Your task to perform on an android device: Play the last video I watched on Youtube Image 0: 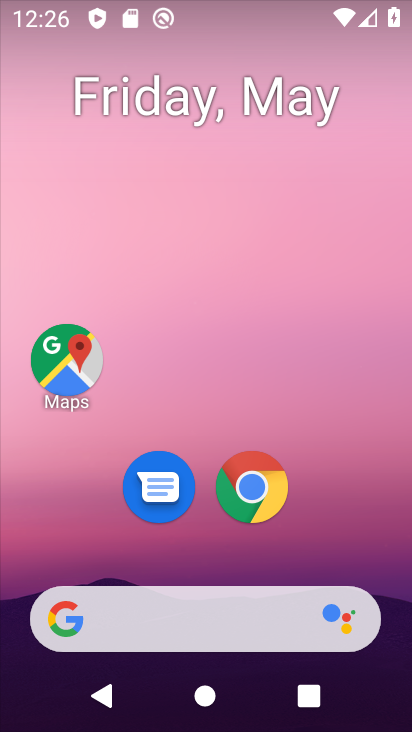
Step 0: drag from (198, 575) to (248, 138)
Your task to perform on an android device: Play the last video I watched on Youtube Image 1: 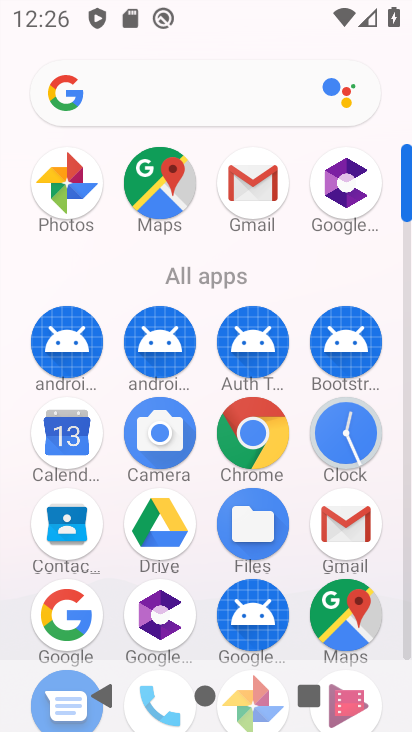
Step 1: drag from (218, 607) to (266, 364)
Your task to perform on an android device: Play the last video I watched on Youtube Image 2: 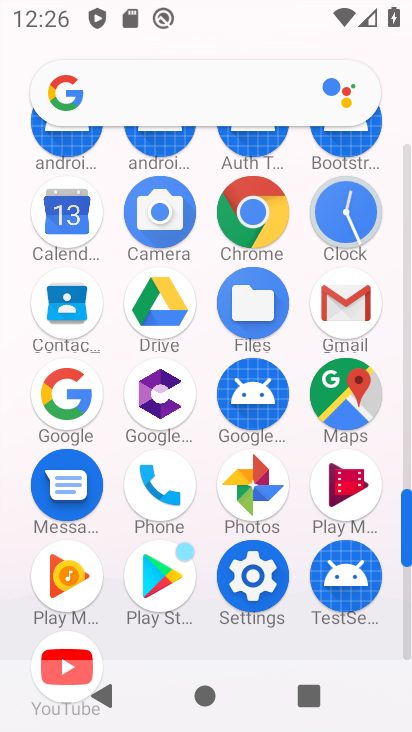
Step 2: click (74, 651)
Your task to perform on an android device: Play the last video I watched on Youtube Image 3: 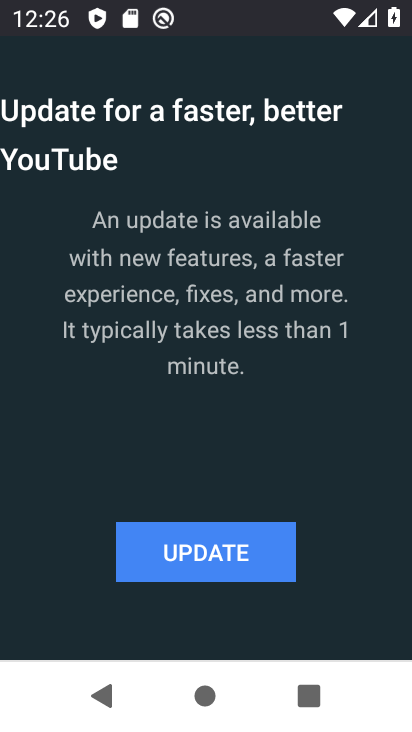
Step 3: click (271, 559)
Your task to perform on an android device: Play the last video I watched on Youtube Image 4: 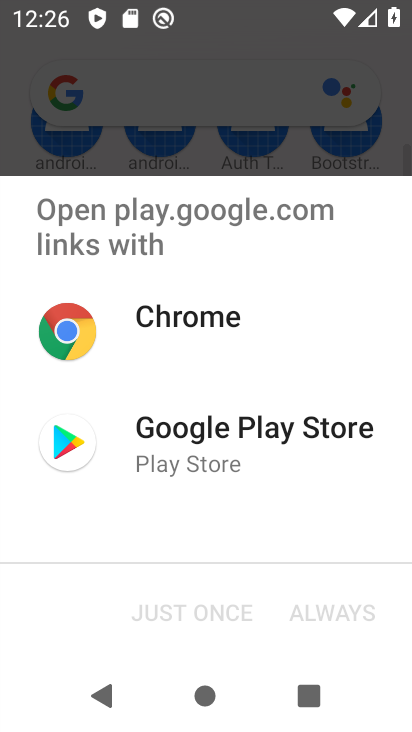
Step 4: click (234, 444)
Your task to perform on an android device: Play the last video I watched on Youtube Image 5: 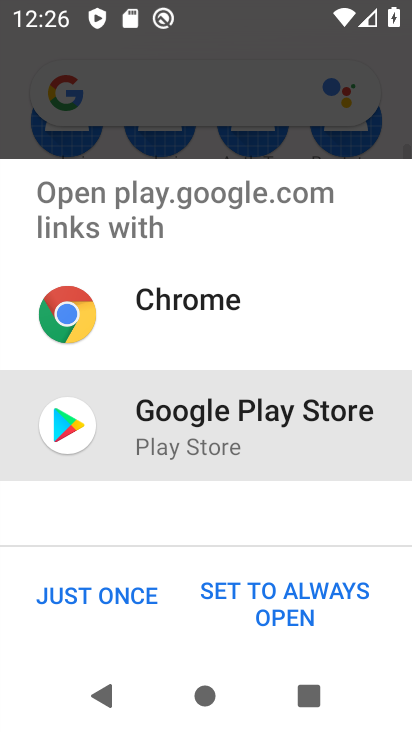
Step 5: click (90, 594)
Your task to perform on an android device: Play the last video I watched on Youtube Image 6: 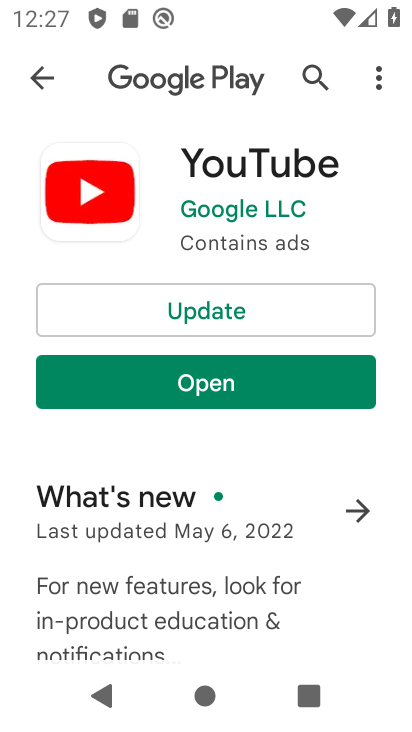
Step 6: click (213, 315)
Your task to perform on an android device: Play the last video I watched on Youtube Image 7: 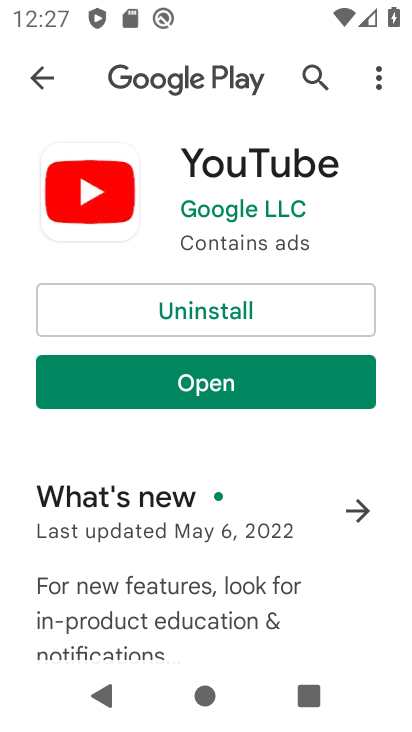
Step 7: click (284, 385)
Your task to perform on an android device: Play the last video I watched on Youtube Image 8: 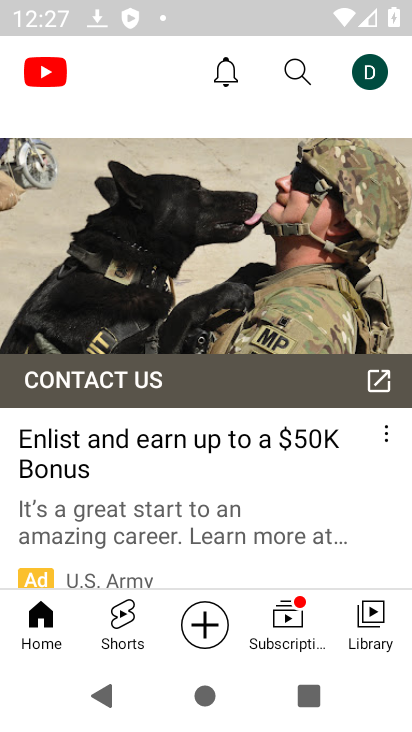
Step 8: click (391, 639)
Your task to perform on an android device: Play the last video I watched on Youtube Image 9: 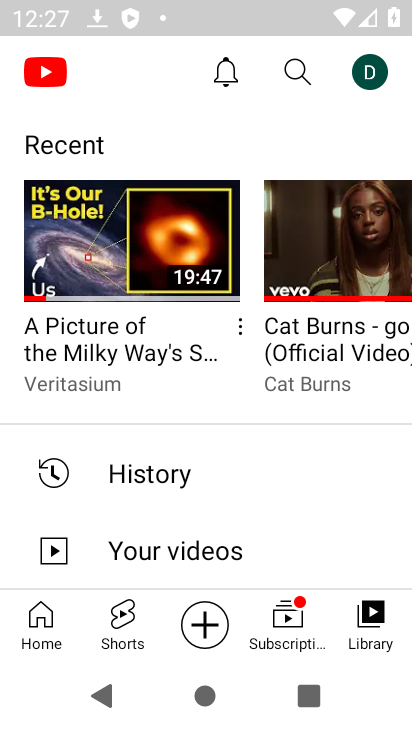
Step 9: click (197, 272)
Your task to perform on an android device: Play the last video I watched on Youtube Image 10: 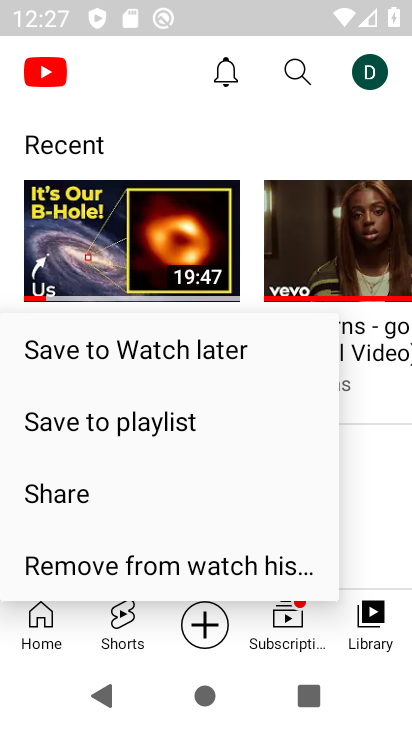
Step 10: click (160, 247)
Your task to perform on an android device: Play the last video I watched on Youtube Image 11: 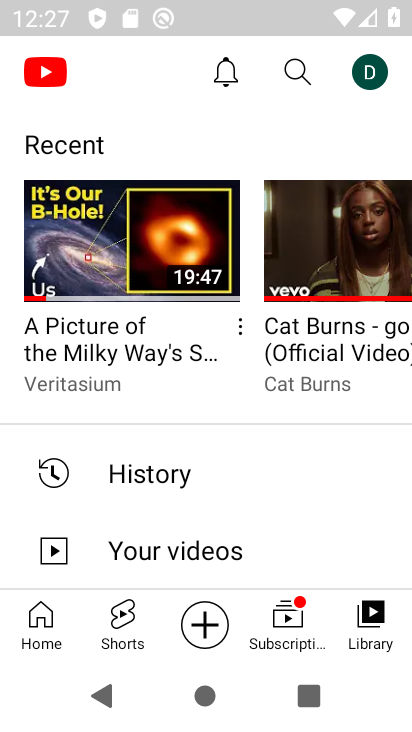
Step 11: click (198, 248)
Your task to perform on an android device: Play the last video I watched on Youtube Image 12: 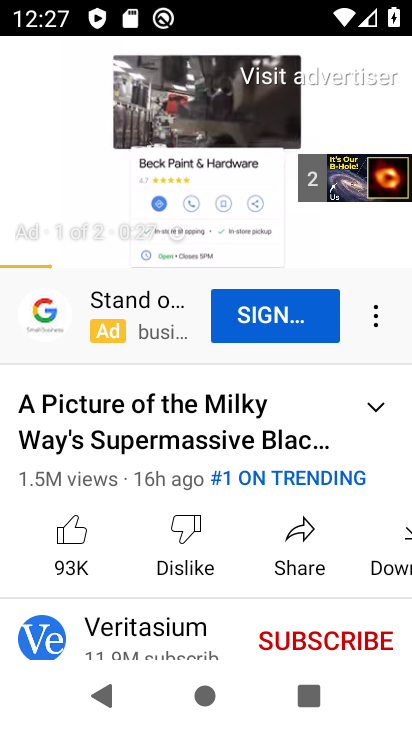
Step 12: task complete